Your task to perform on an android device: See recent photos Image 0: 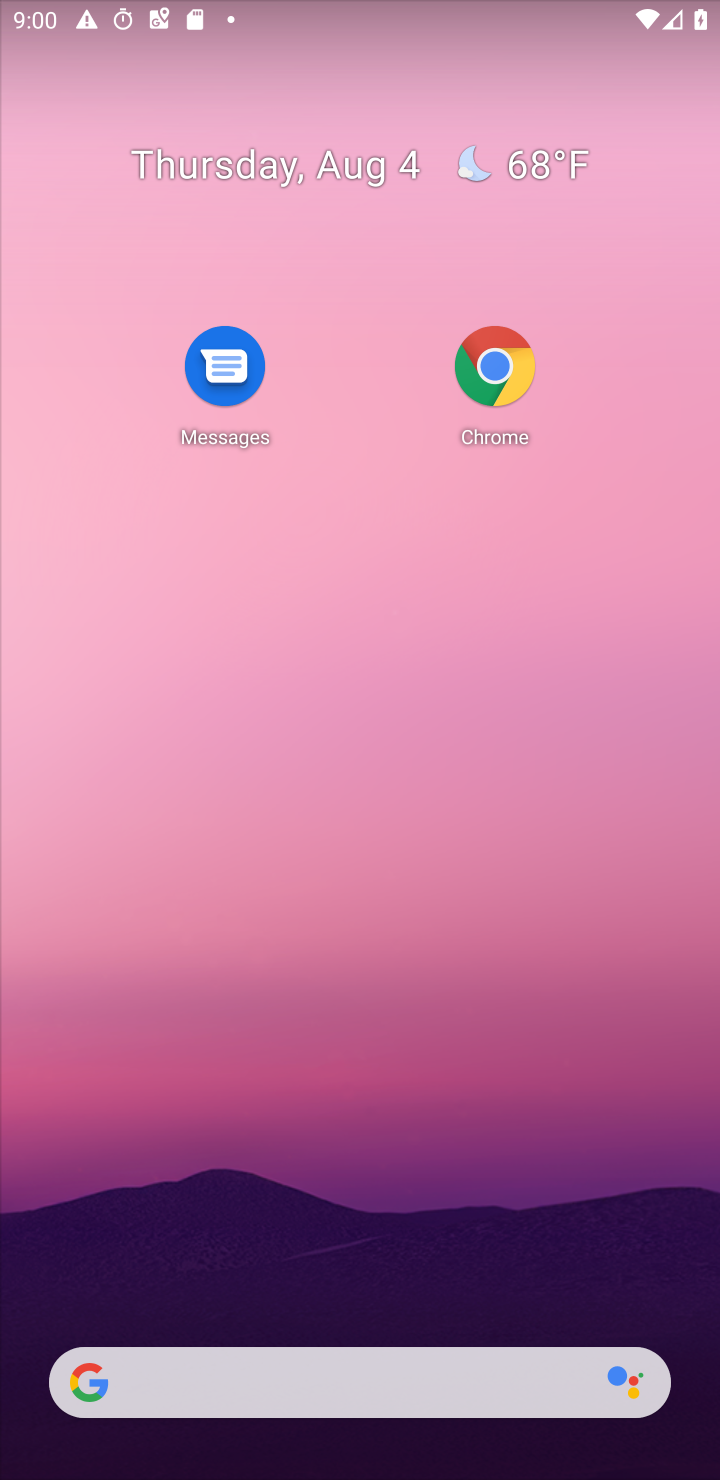
Step 0: press home button
Your task to perform on an android device: See recent photos Image 1: 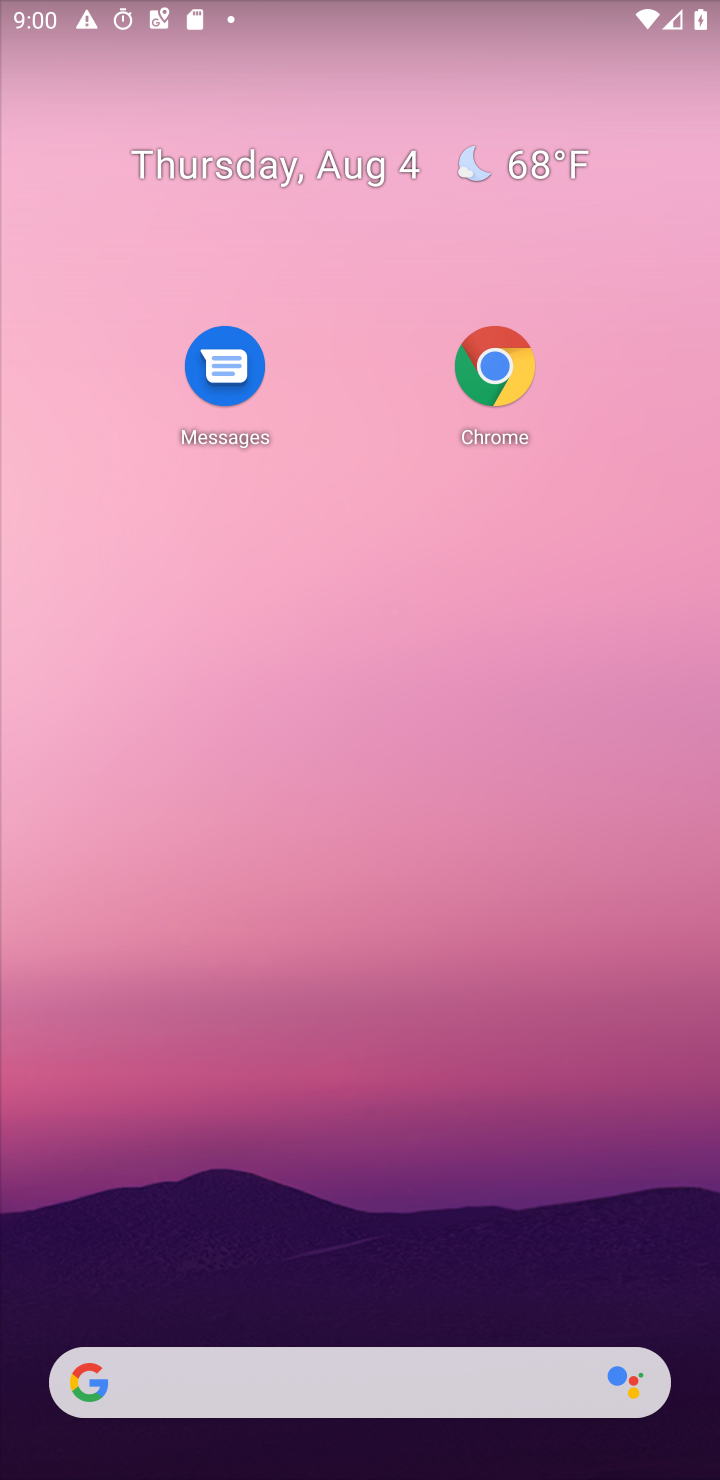
Step 1: click (520, 441)
Your task to perform on an android device: See recent photos Image 2: 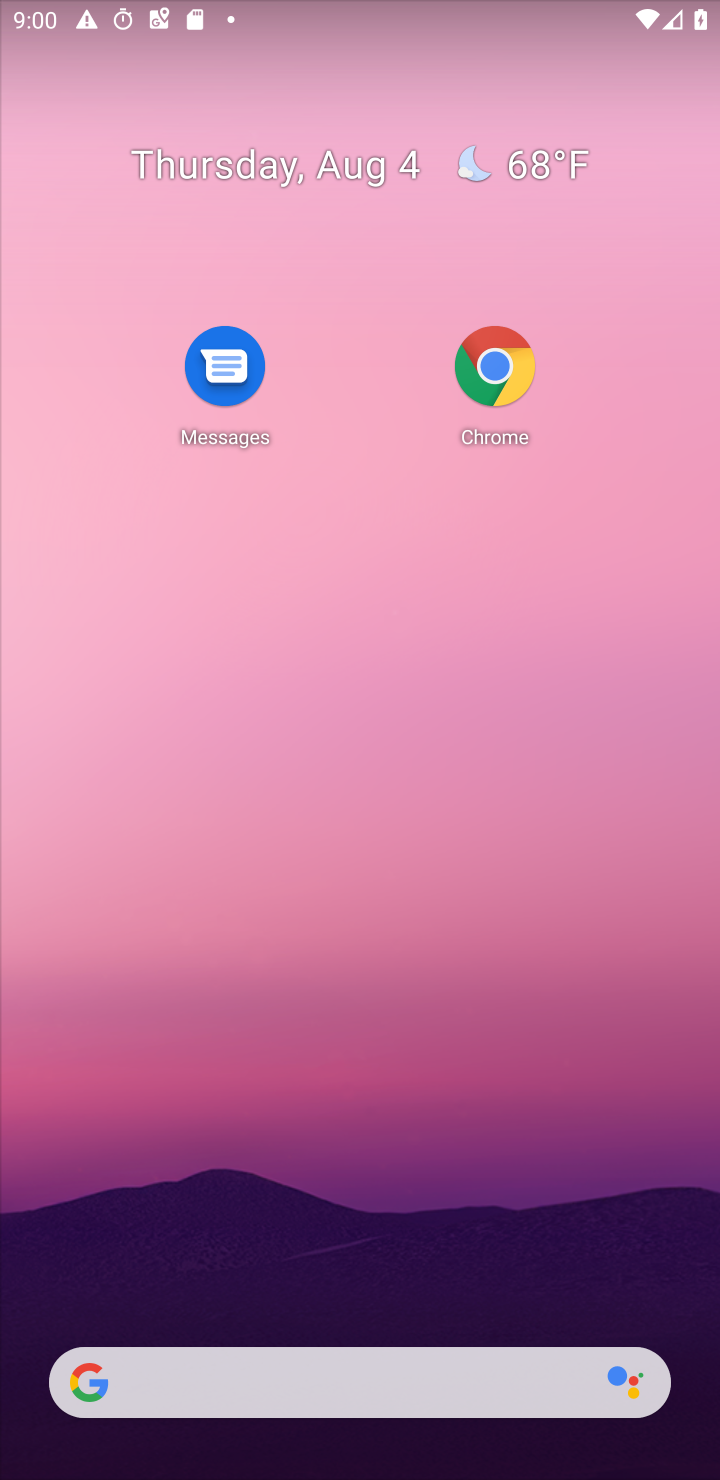
Step 2: drag from (357, 1386) to (552, 186)
Your task to perform on an android device: See recent photos Image 3: 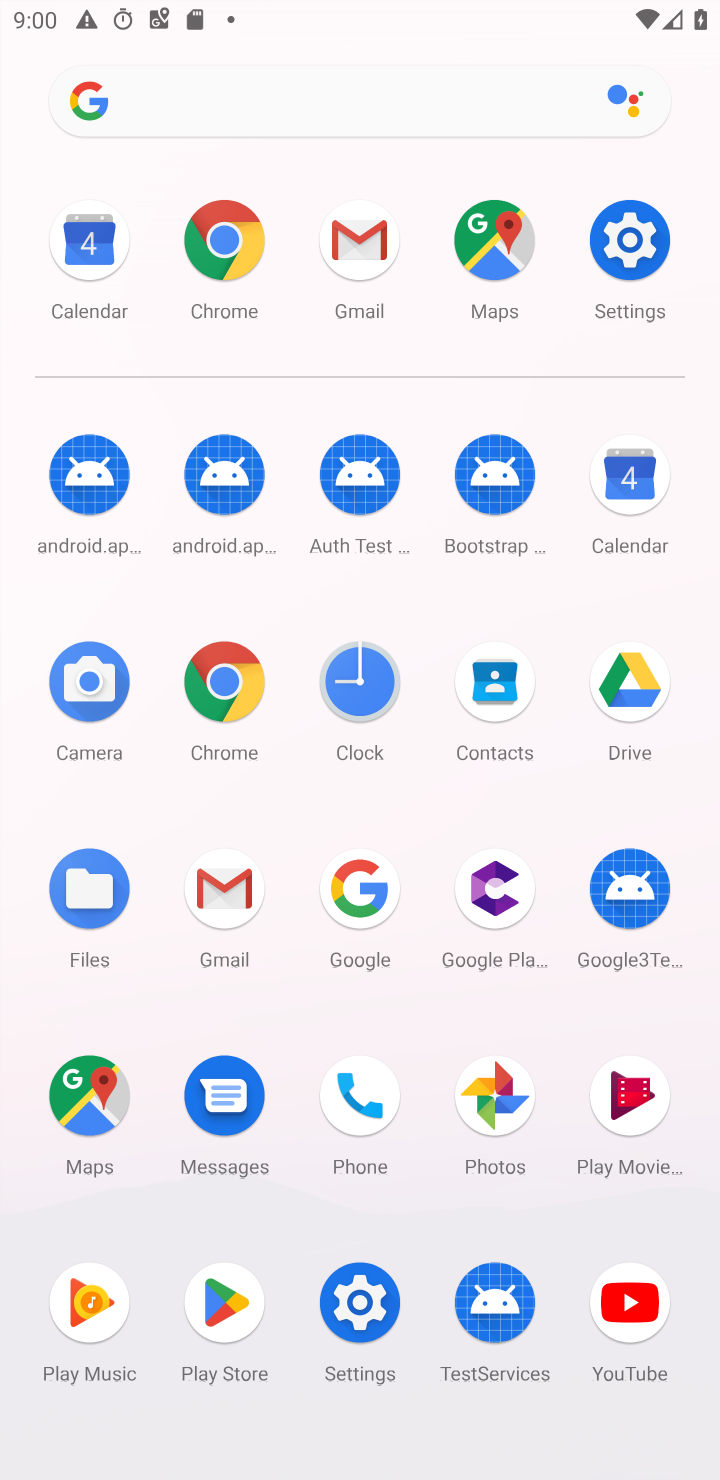
Step 3: click (486, 1103)
Your task to perform on an android device: See recent photos Image 4: 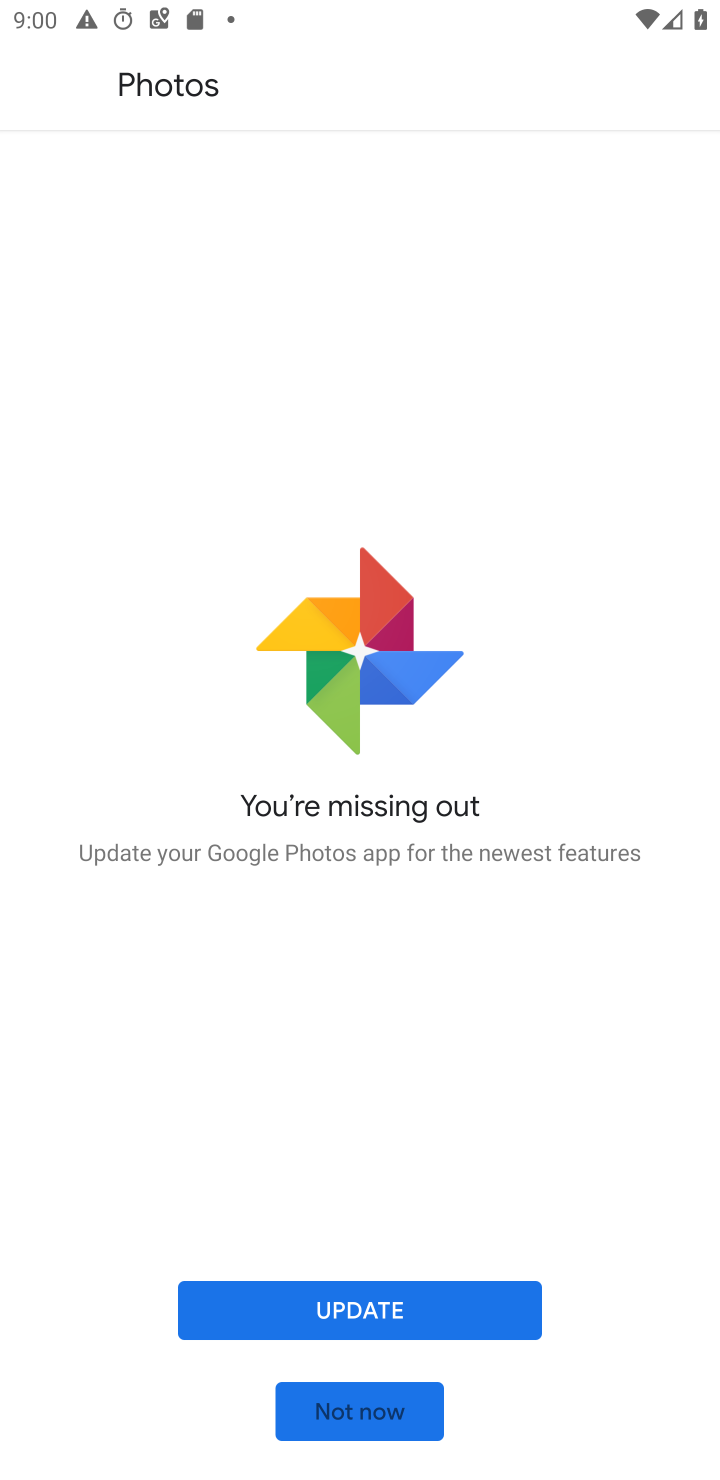
Step 4: click (392, 1291)
Your task to perform on an android device: See recent photos Image 5: 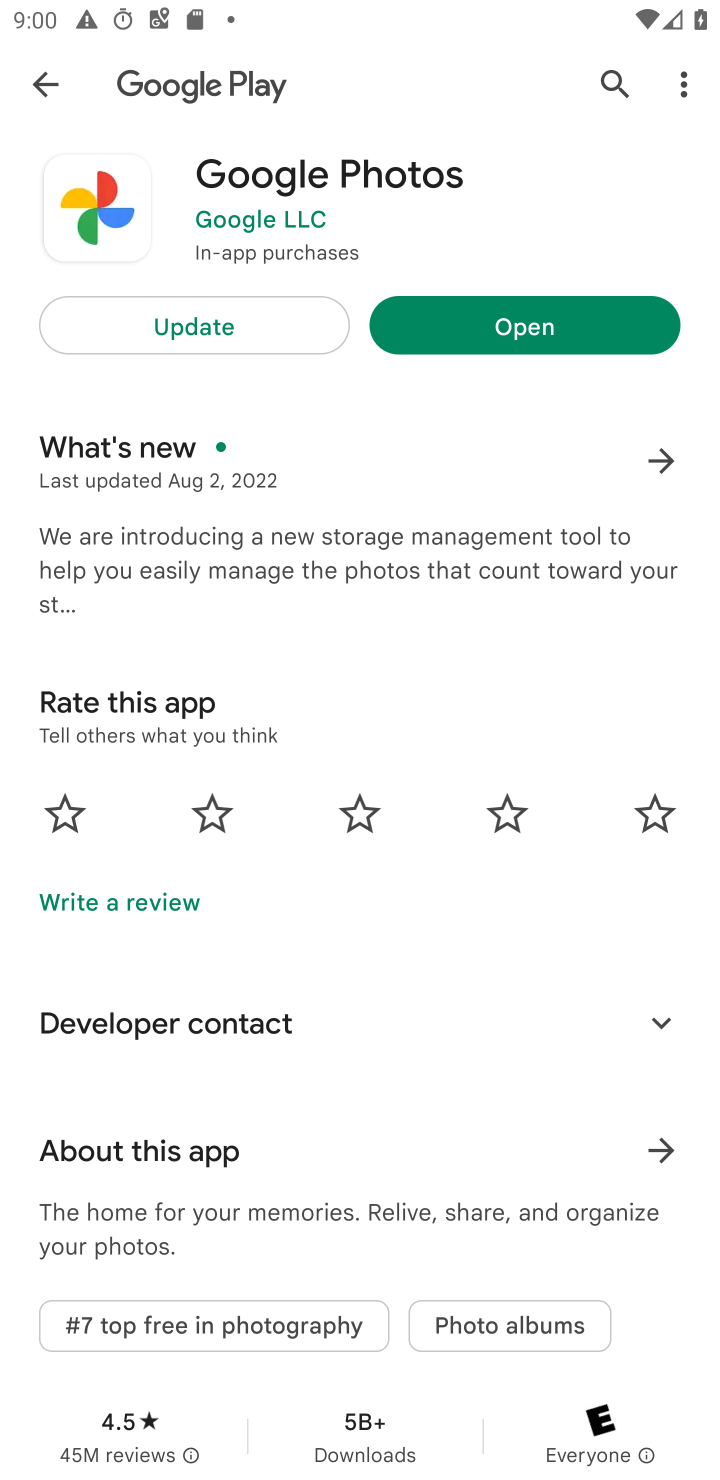
Step 5: click (222, 304)
Your task to perform on an android device: See recent photos Image 6: 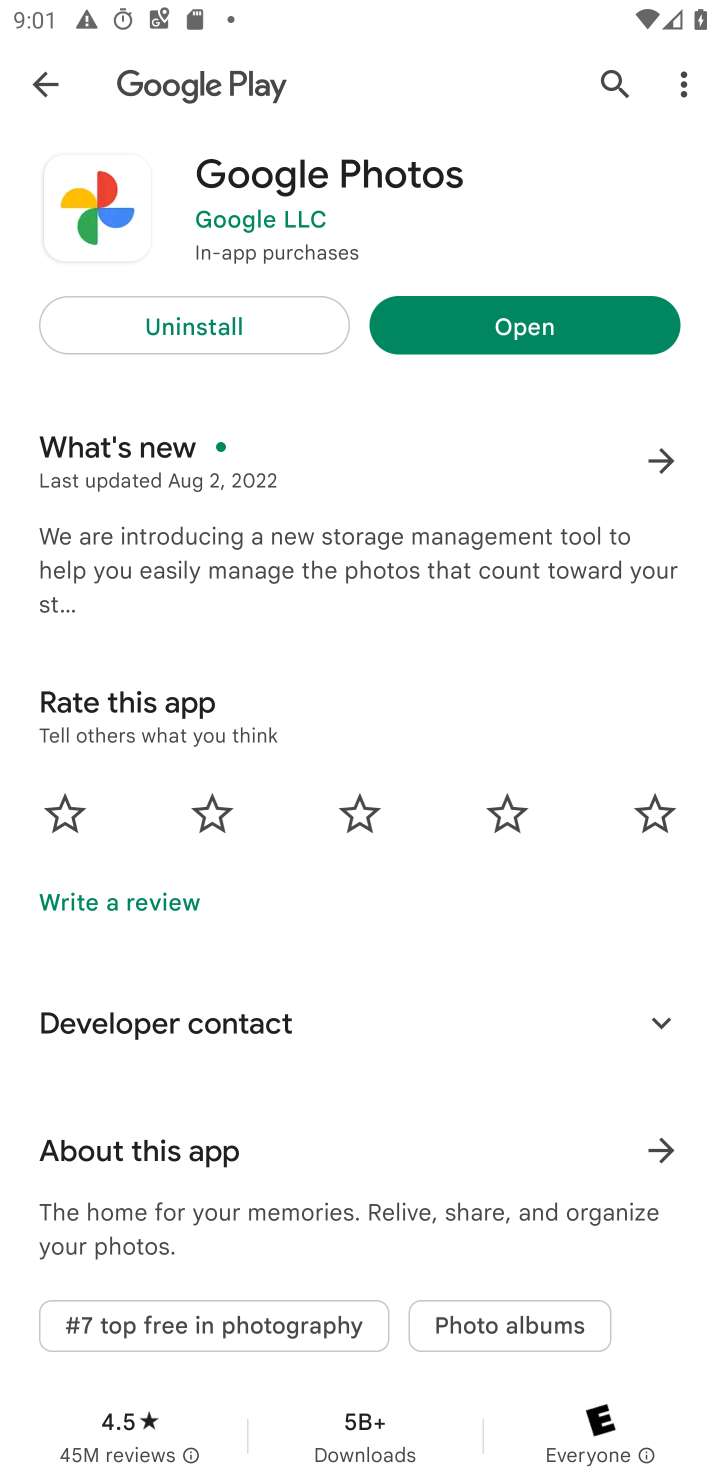
Step 6: click (522, 309)
Your task to perform on an android device: See recent photos Image 7: 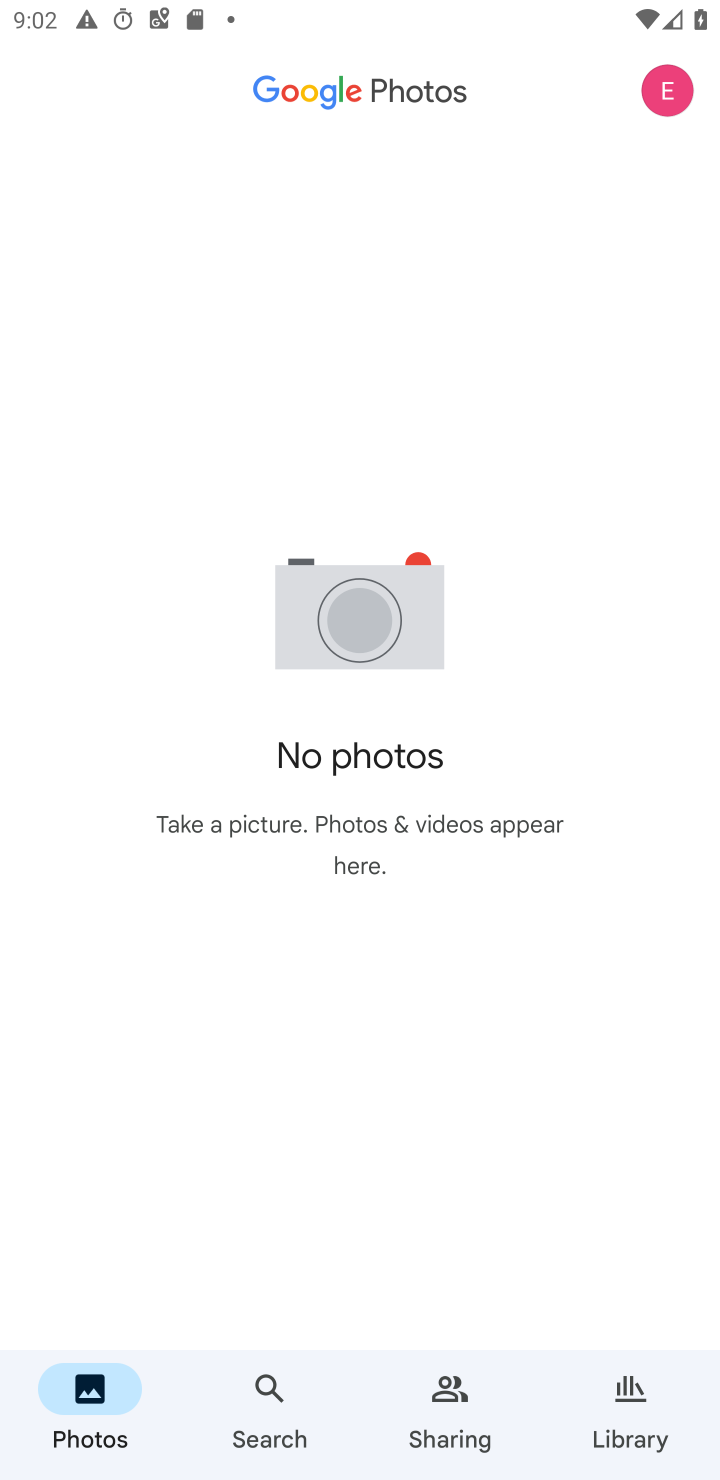
Step 7: task complete